Your task to perform on an android device: When is my next appointment? Image 0: 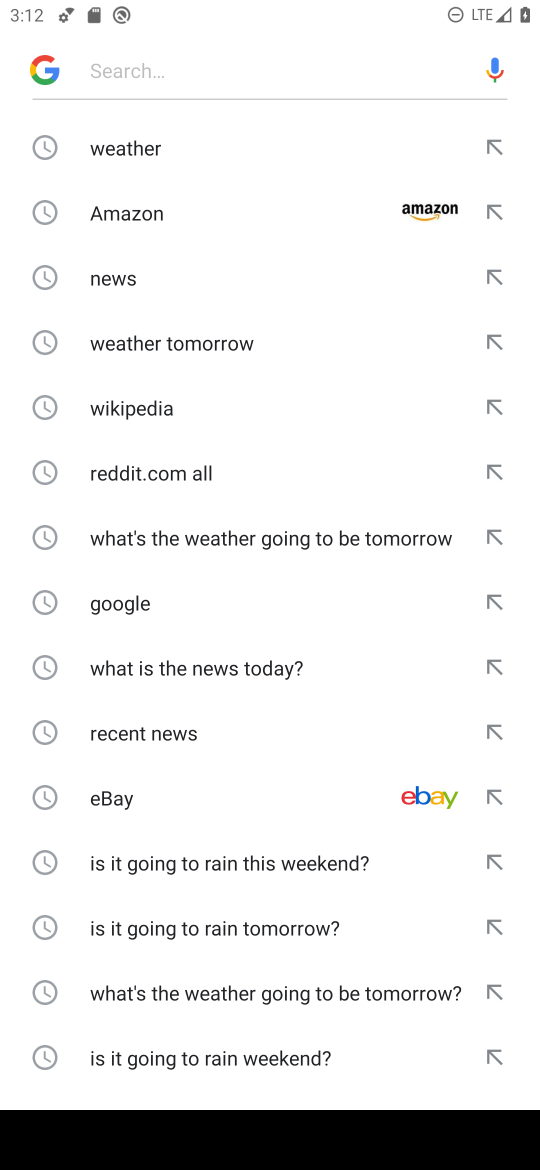
Step 0: press home button
Your task to perform on an android device: When is my next appointment? Image 1: 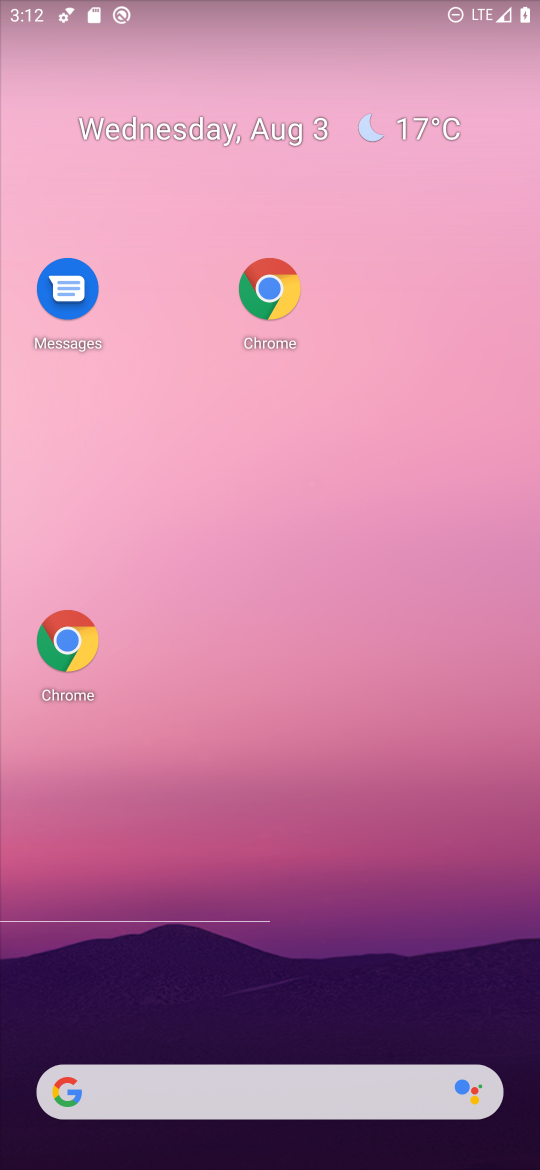
Step 1: drag from (405, 1019) to (344, 306)
Your task to perform on an android device: When is my next appointment? Image 2: 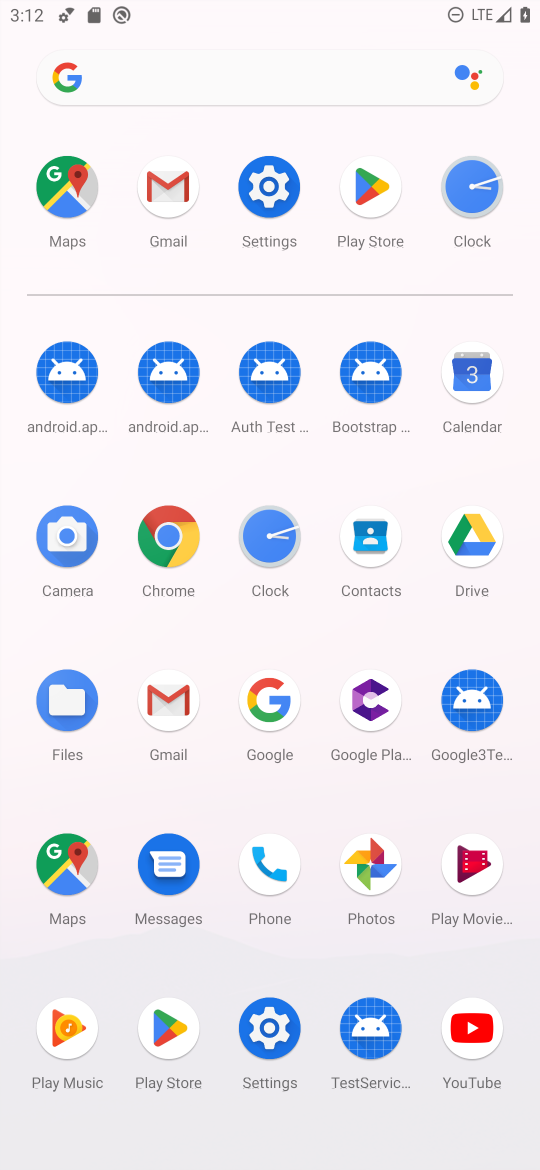
Step 2: click (460, 423)
Your task to perform on an android device: When is my next appointment? Image 3: 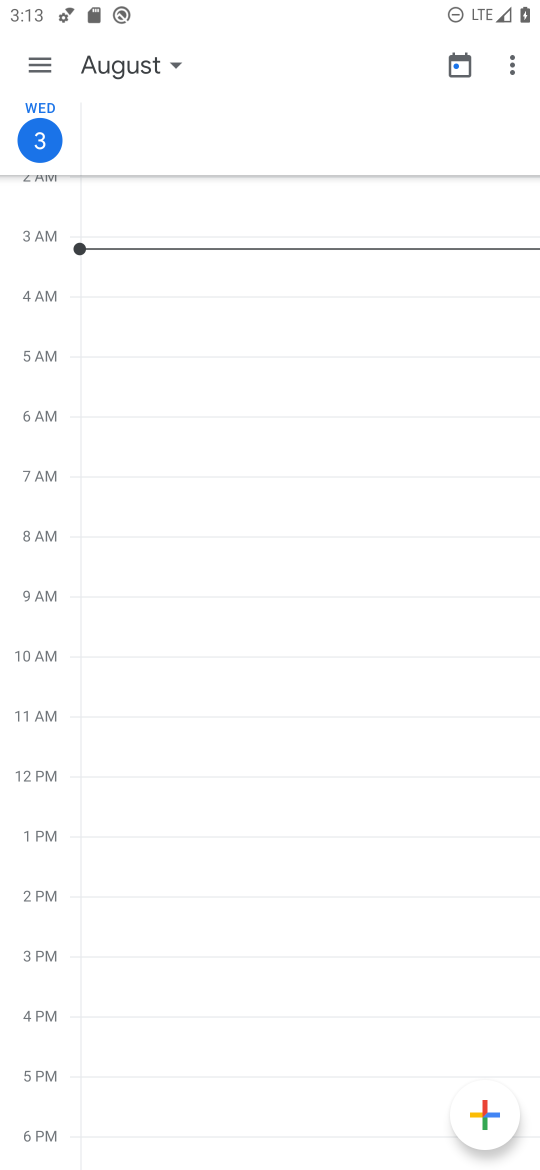
Step 3: task complete